Your task to perform on an android device: empty trash in google photos Image 0: 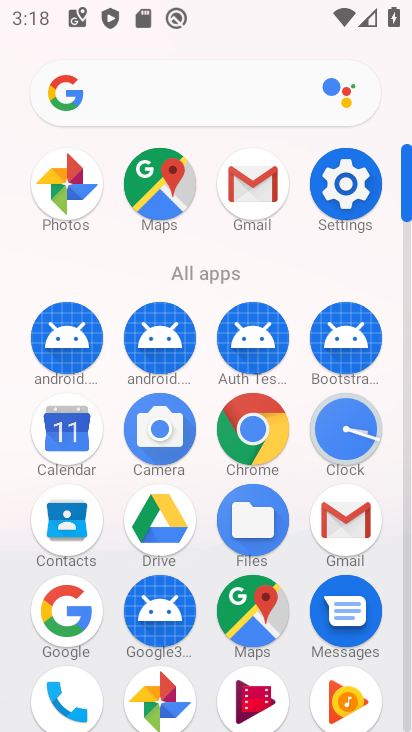
Step 0: click (170, 697)
Your task to perform on an android device: empty trash in google photos Image 1: 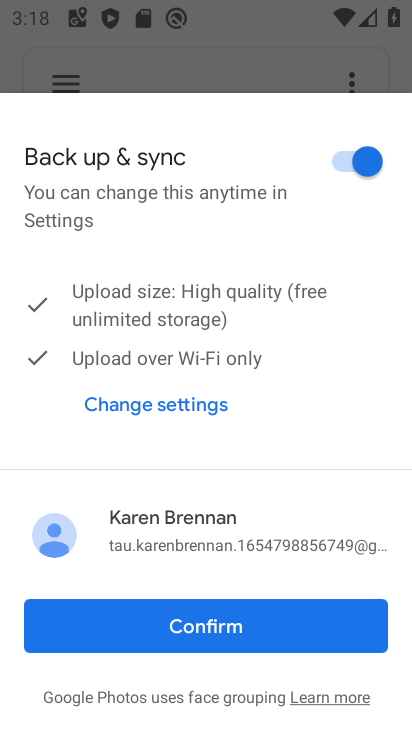
Step 1: click (241, 616)
Your task to perform on an android device: empty trash in google photos Image 2: 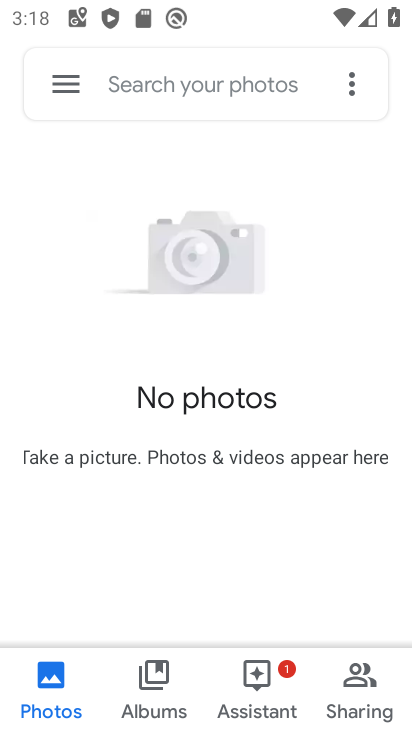
Step 2: drag from (251, 581) to (255, 211)
Your task to perform on an android device: empty trash in google photos Image 3: 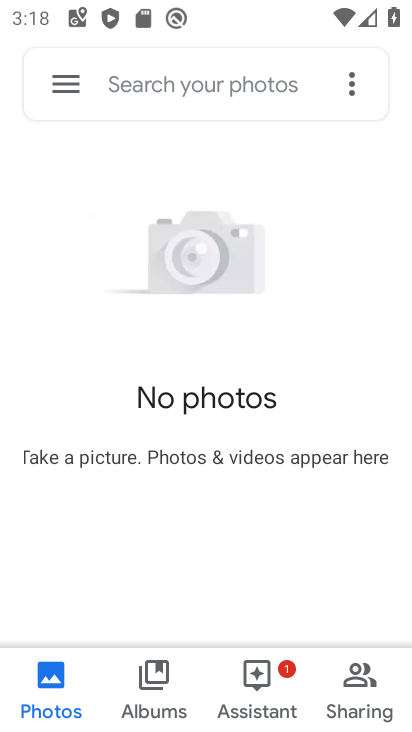
Step 3: click (63, 89)
Your task to perform on an android device: empty trash in google photos Image 4: 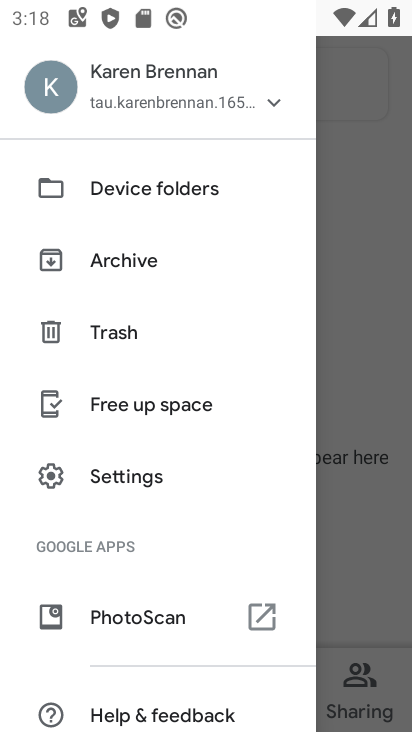
Step 4: click (122, 340)
Your task to perform on an android device: empty trash in google photos Image 5: 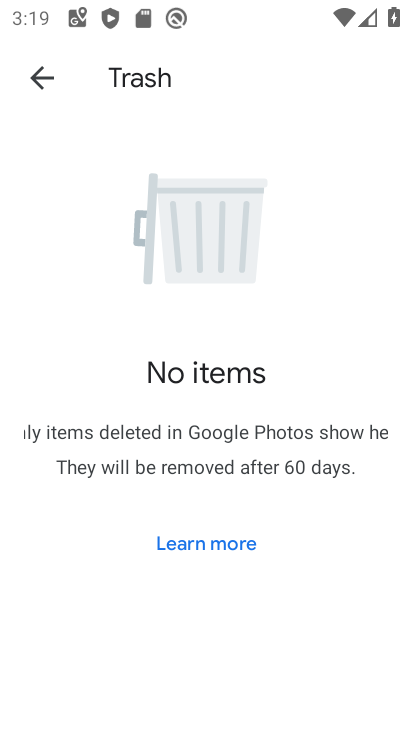
Step 5: task complete